Your task to perform on an android device: Search for hotels in Seattle Image 0: 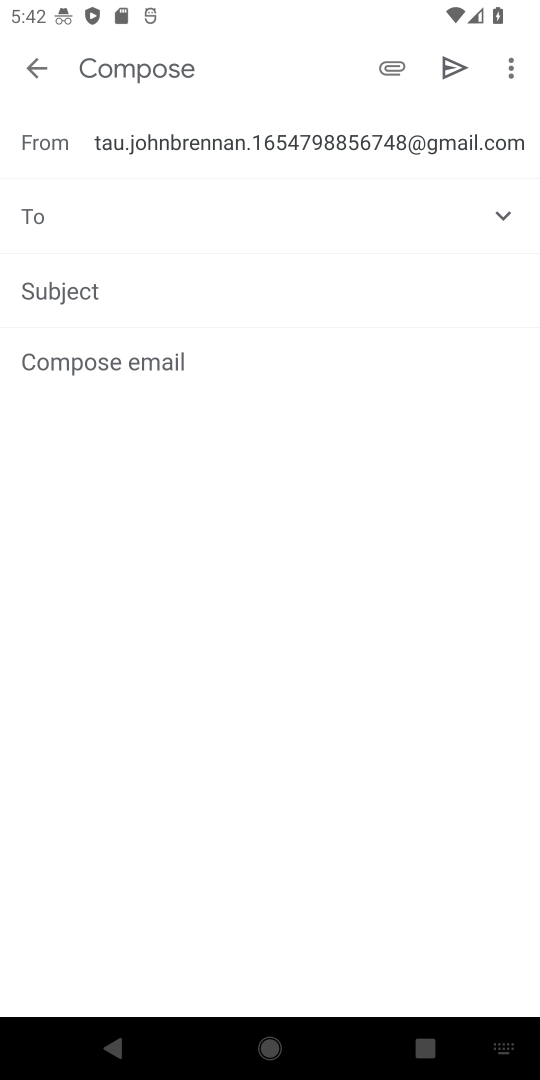
Step 0: press home button
Your task to perform on an android device: Search for hotels in Seattle Image 1: 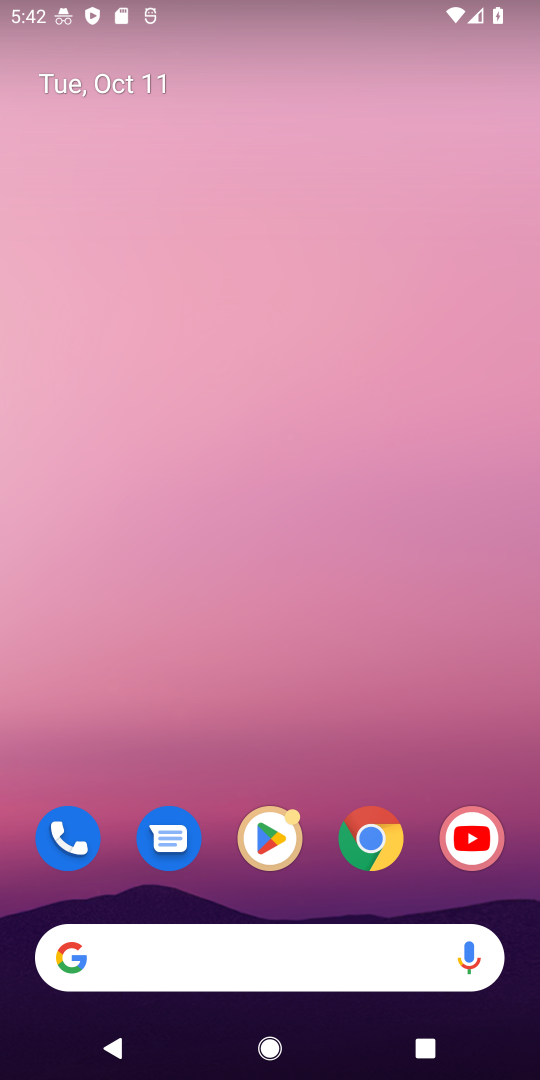
Step 1: click (357, 830)
Your task to perform on an android device: Search for hotels in Seattle Image 2: 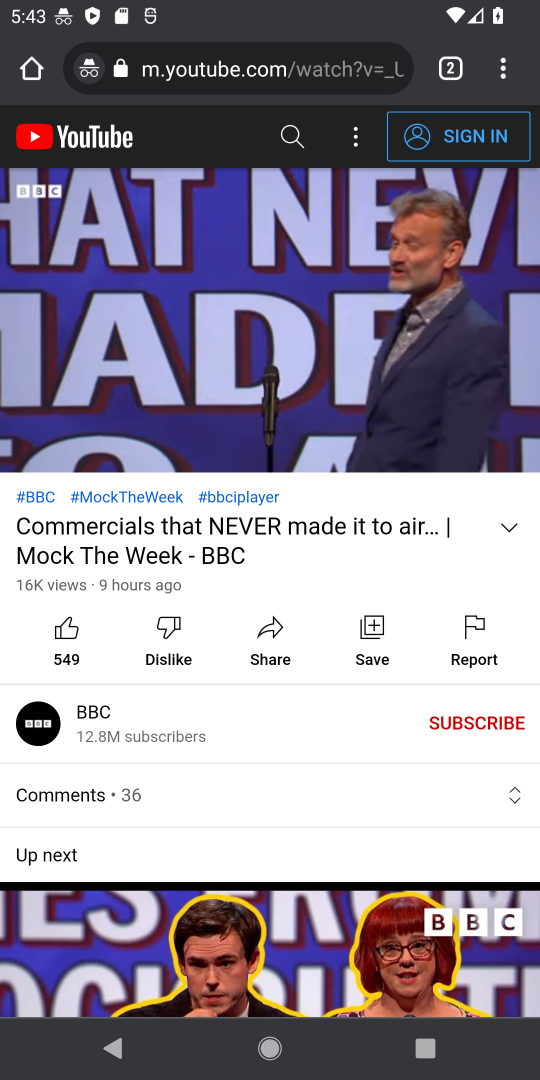
Step 2: click (217, 69)
Your task to perform on an android device: Search for hotels in Seattle Image 3: 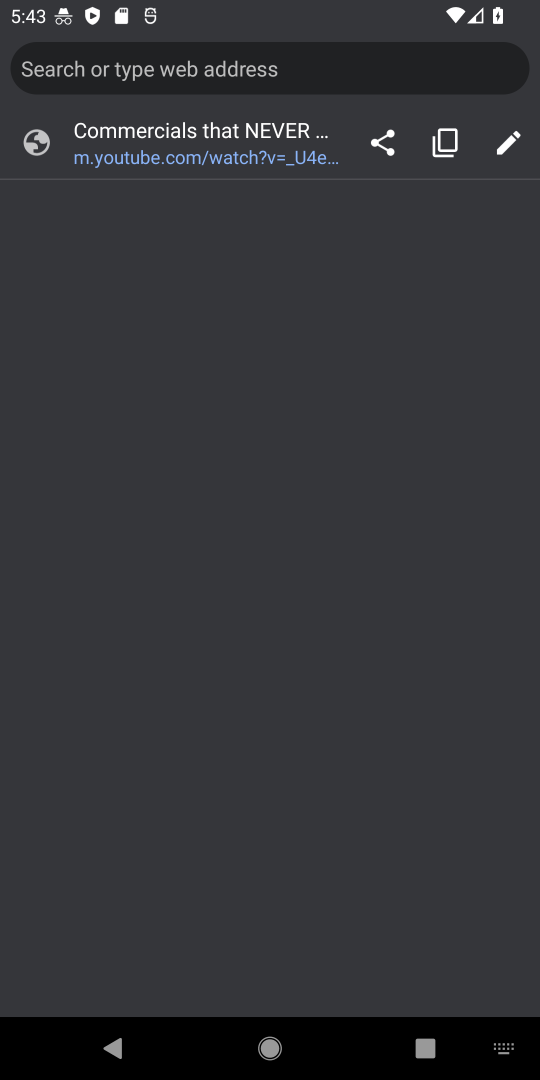
Step 3: type "hotels in Seattle"
Your task to perform on an android device: Search for hotels in Seattle Image 4: 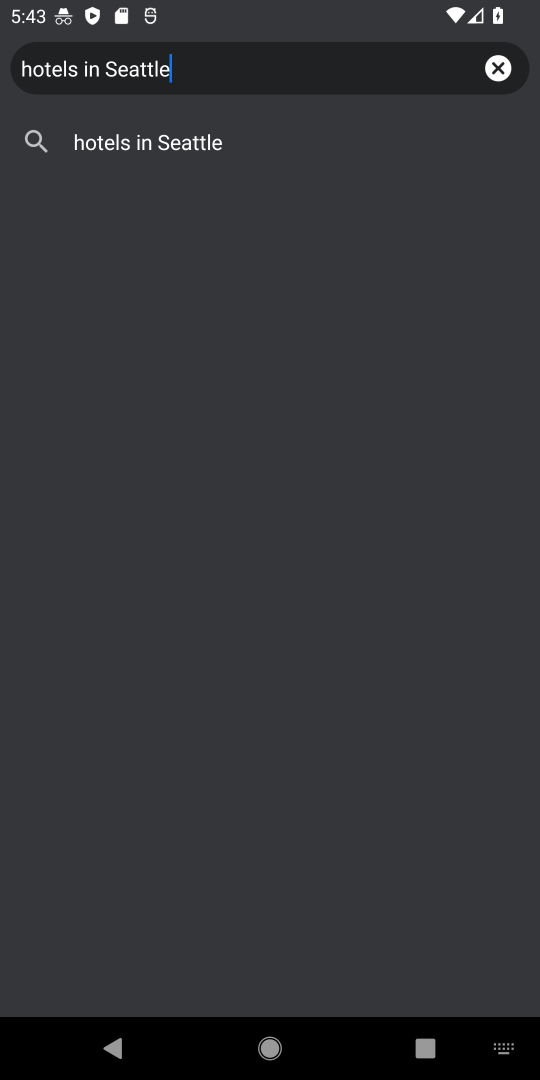
Step 4: click (297, 147)
Your task to perform on an android device: Search for hotels in Seattle Image 5: 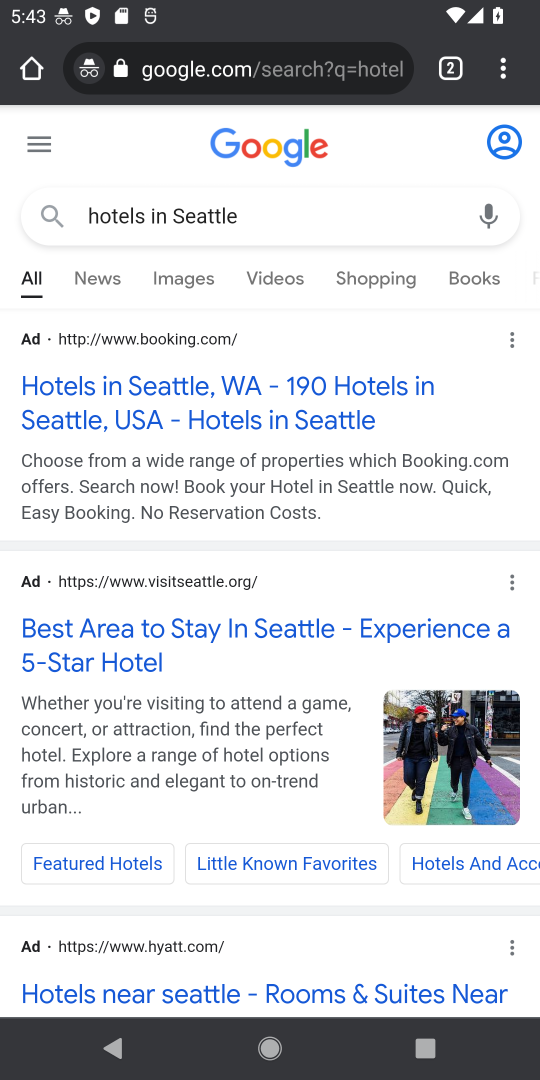
Step 5: drag from (265, 835) to (185, 436)
Your task to perform on an android device: Search for hotels in Seattle Image 6: 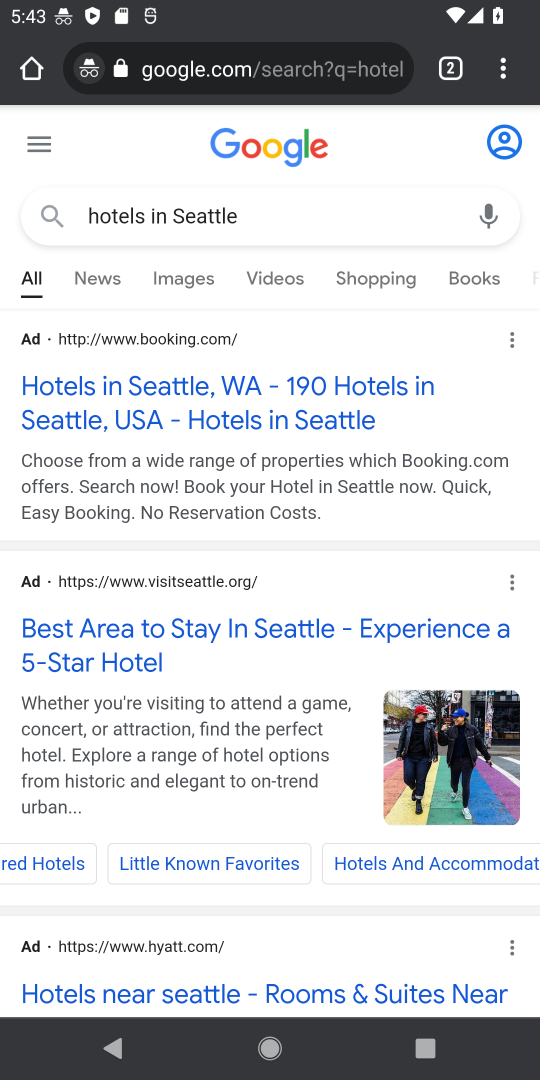
Step 6: drag from (298, 919) to (141, 29)
Your task to perform on an android device: Search for hotels in Seattle Image 7: 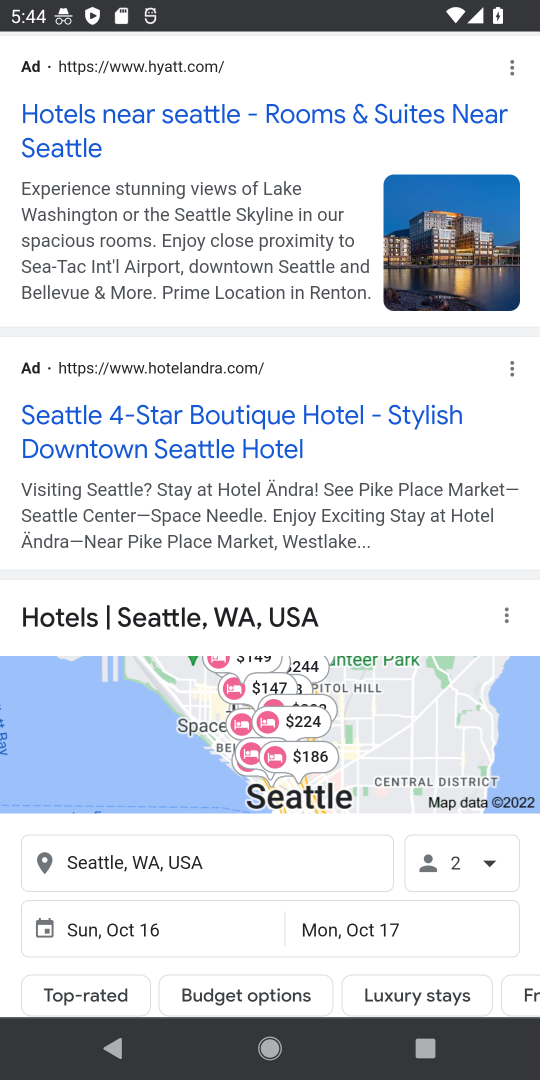
Step 7: drag from (256, 898) to (192, 255)
Your task to perform on an android device: Search for hotels in Seattle Image 8: 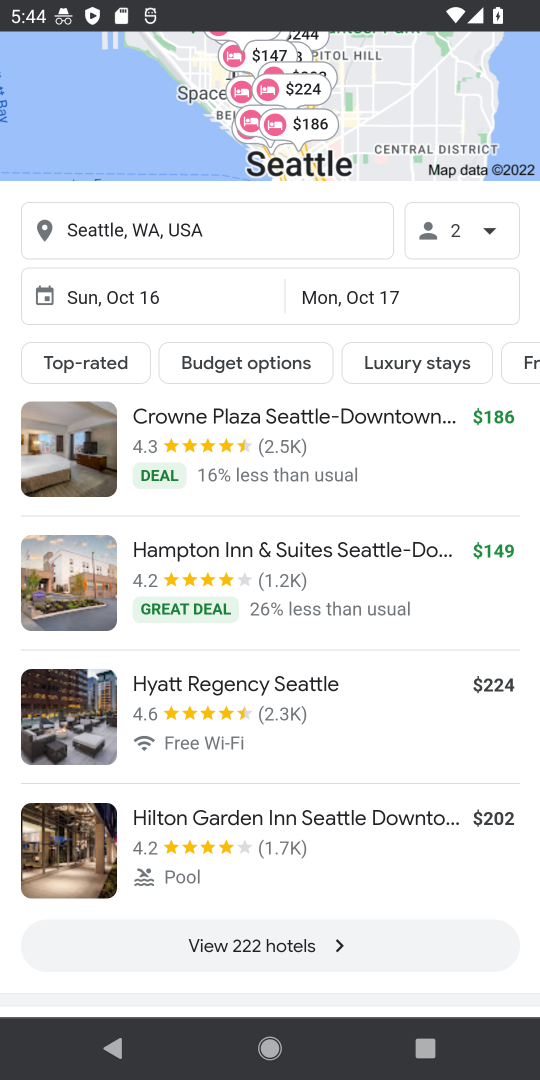
Step 8: click (228, 947)
Your task to perform on an android device: Search for hotels in Seattle Image 9: 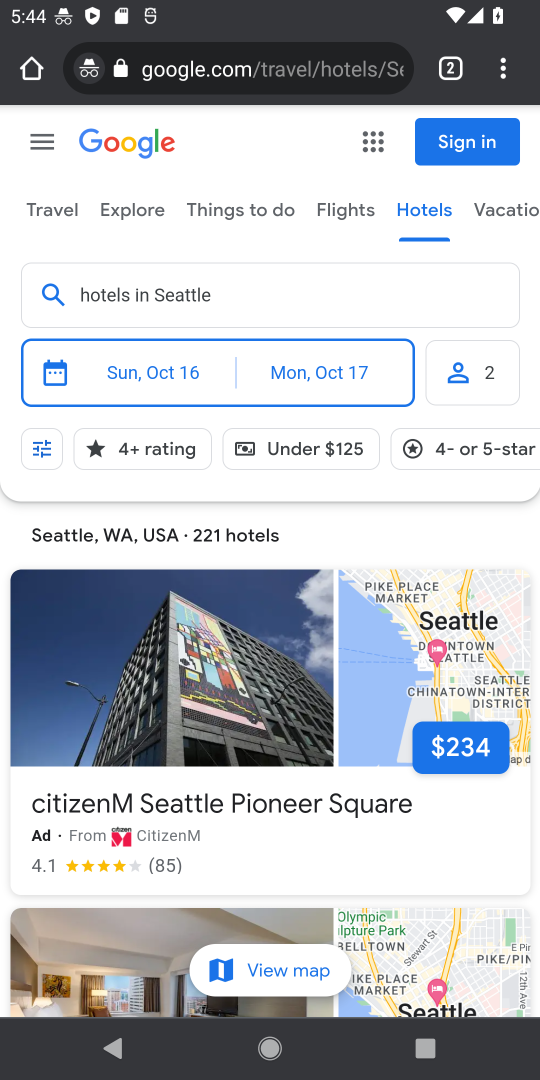
Step 9: task complete